Your task to perform on an android device: Open Android settings Image 0: 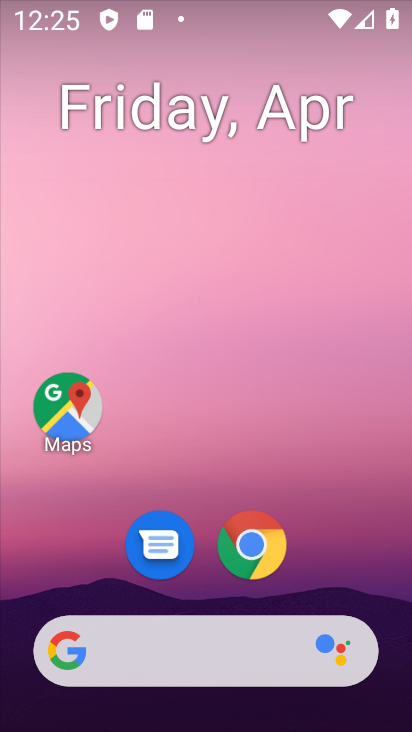
Step 0: drag from (326, 571) to (336, 162)
Your task to perform on an android device: Open Android settings Image 1: 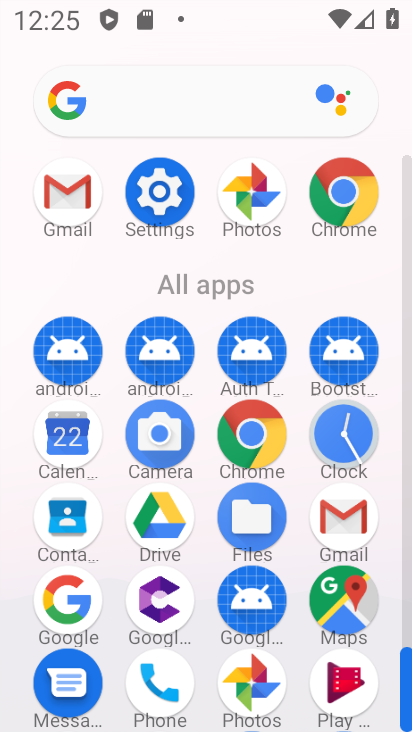
Step 1: click (172, 199)
Your task to perform on an android device: Open Android settings Image 2: 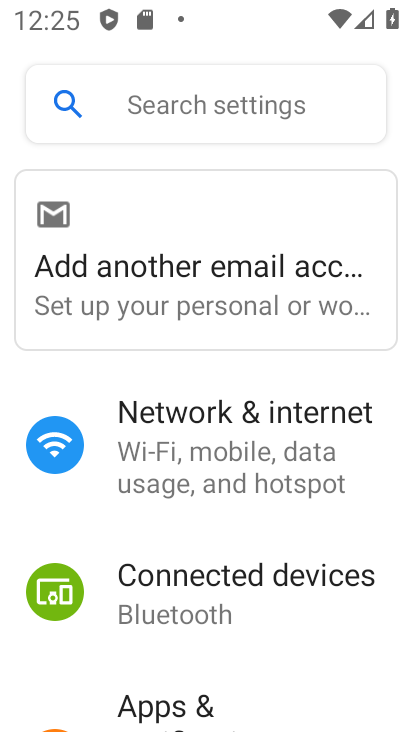
Step 2: drag from (268, 612) to (284, 154)
Your task to perform on an android device: Open Android settings Image 3: 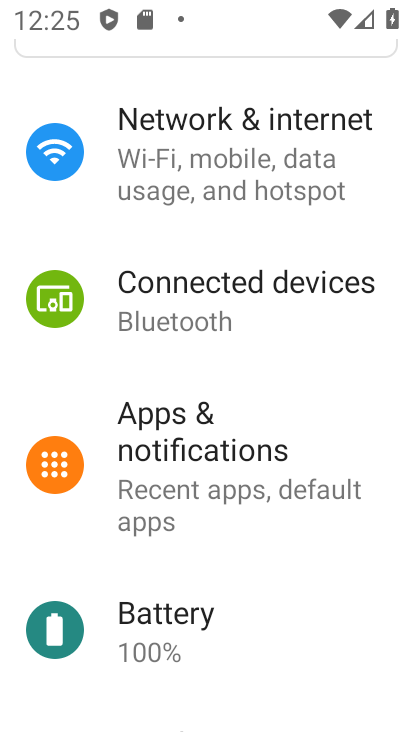
Step 3: drag from (329, 560) to (324, 145)
Your task to perform on an android device: Open Android settings Image 4: 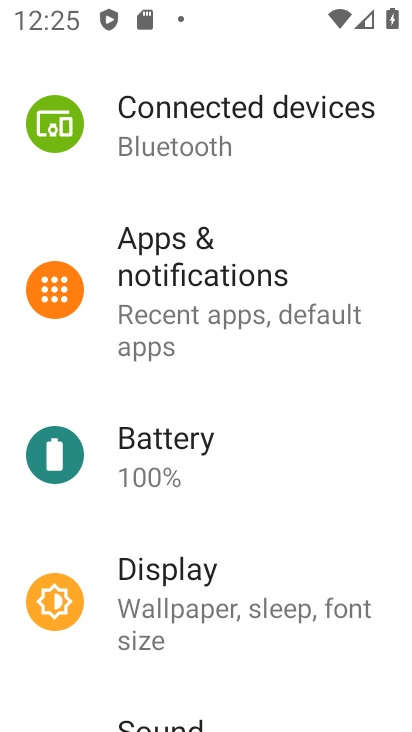
Step 4: drag from (292, 600) to (275, 160)
Your task to perform on an android device: Open Android settings Image 5: 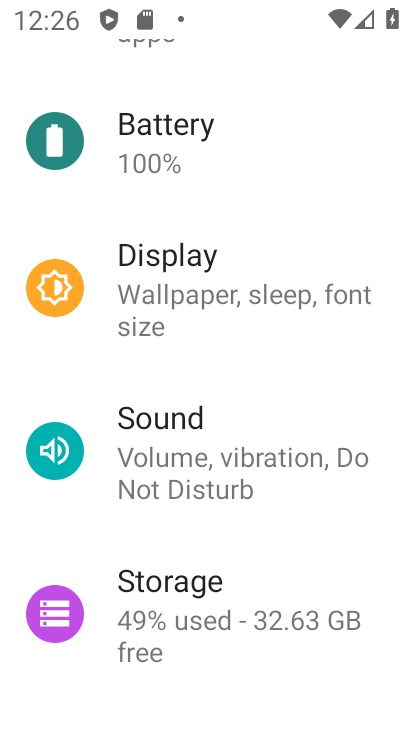
Step 5: drag from (293, 561) to (272, 96)
Your task to perform on an android device: Open Android settings Image 6: 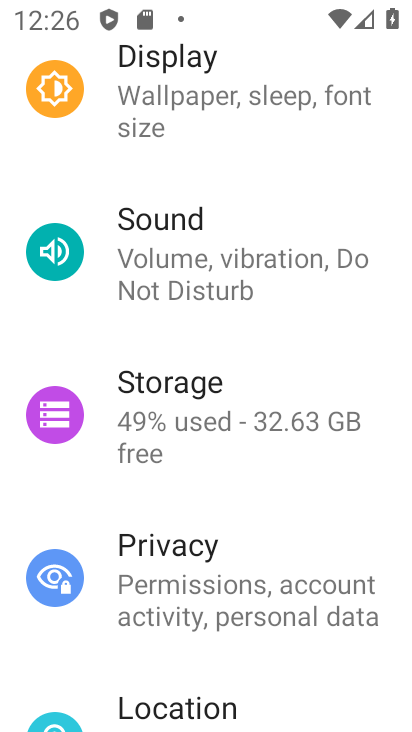
Step 6: drag from (297, 622) to (291, 133)
Your task to perform on an android device: Open Android settings Image 7: 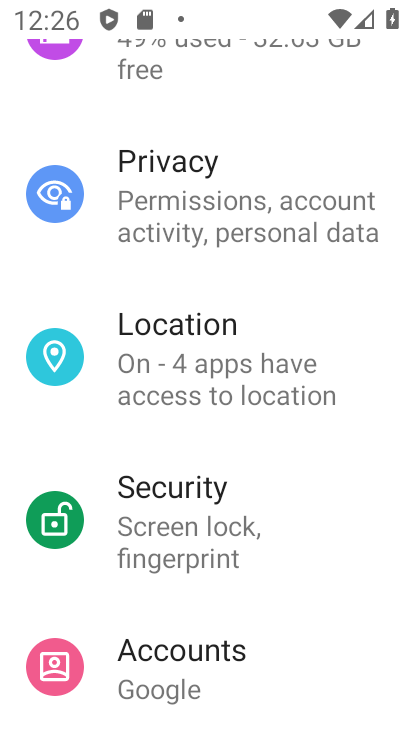
Step 7: drag from (294, 667) to (293, 231)
Your task to perform on an android device: Open Android settings Image 8: 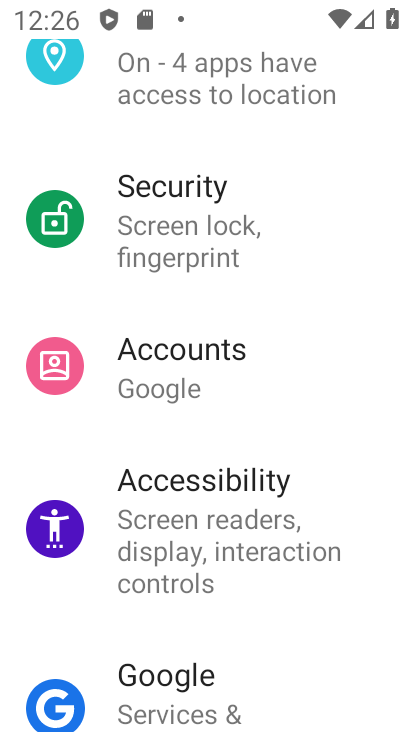
Step 8: drag from (277, 588) to (278, 128)
Your task to perform on an android device: Open Android settings Image 9: 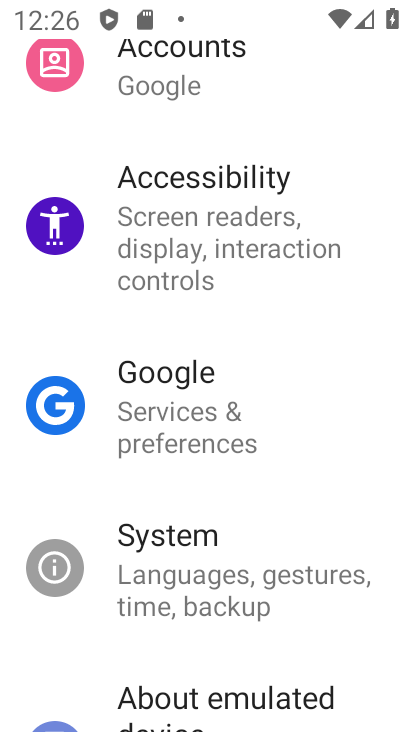
Step 9: drag from (291, 537) to (289, 79)
Your task to perform on an android device: Open Android settings Image 10: 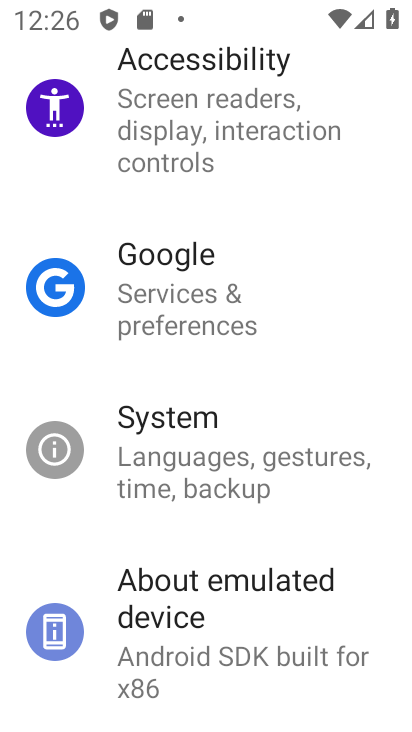
Step 10: click (247, 597)
Your task to perform on an android device: Open Android settings Image 11: 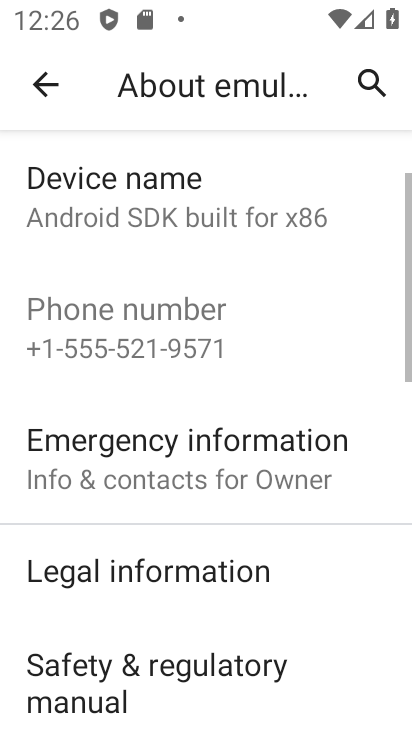
Step 11: drag from (315, 566) to (303, 139)
Your task to perform on an android device: Open Android settings Image 12: 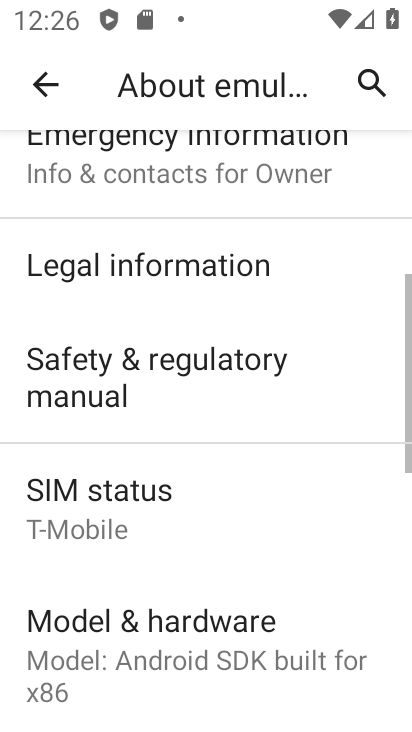
Step 12: drag from (284, 547) to (277, 210)
Your task to perform on an android device: Open Android settings Image 13: 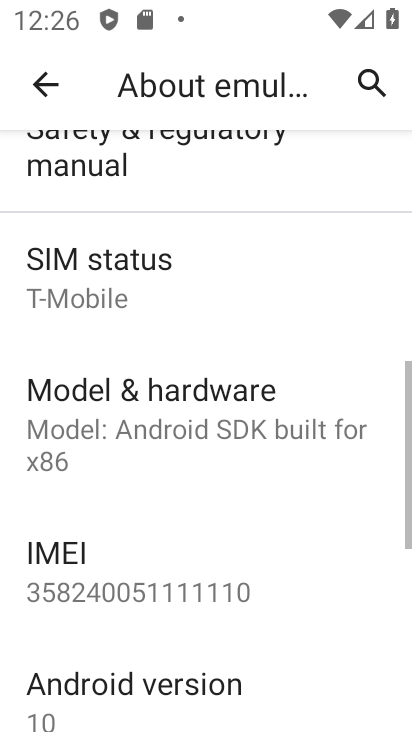
Step 13: click (242, 692)
Your task to perform on an android device: Open Android settings Image 14: 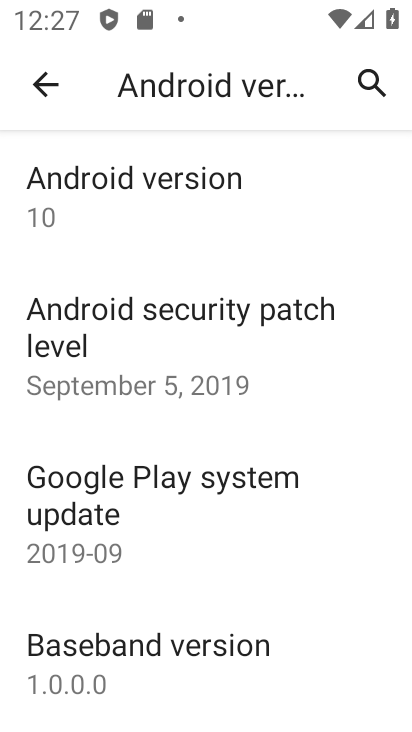
Step 14: task complete